Your task to perform on an android device: Open maps Image 0: 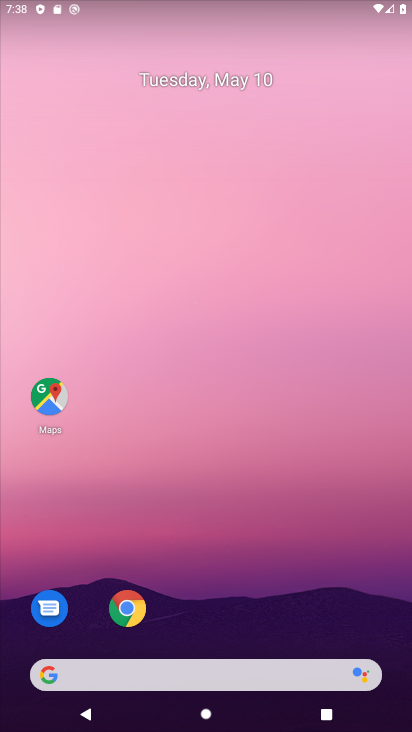
Step 0: drag from (298, 595) to (243, 240)
Your task to perform on an android device: Open maps Image 1: 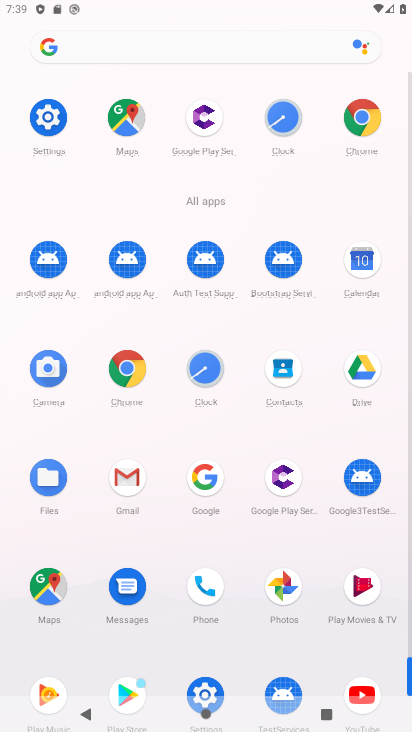
Step 1: click (124, 118)
Your task to perform on an android device: Open maps Image 2: 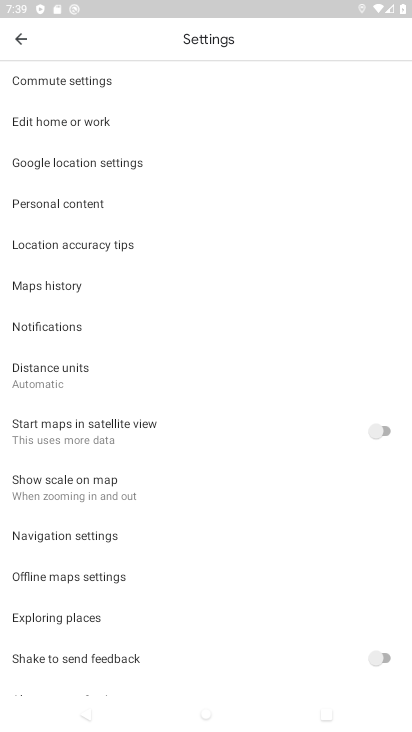
Step 2: click (18, 43)
Your task to perform on an android device: Open maps Image 3: 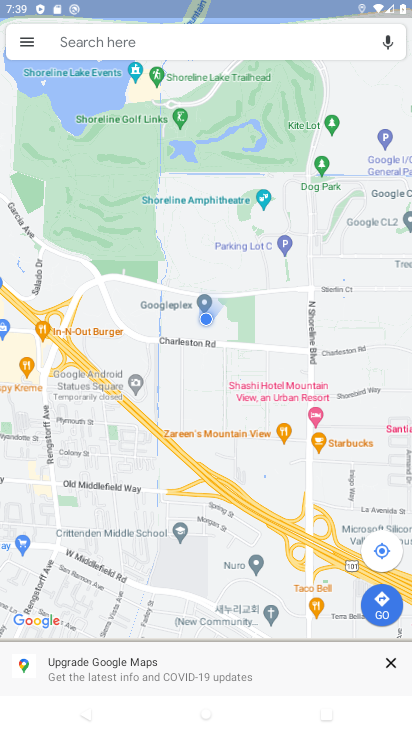
Step 3: task complete